Your task to perform on an android device: change text size in settings app Image 0: 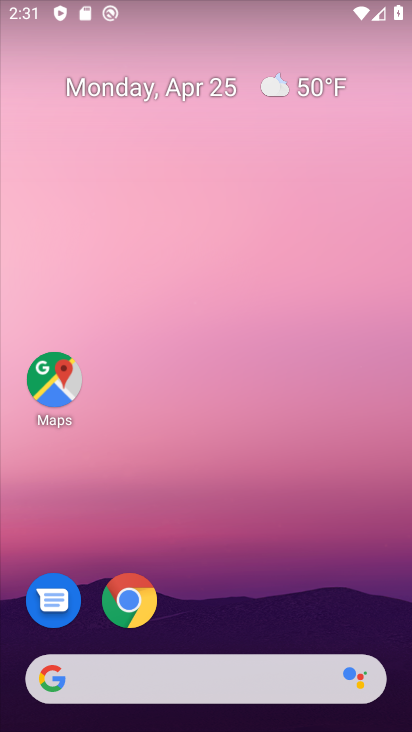
Step 0: drag from (351, 565) to (320, 125)
Your task to perform on an android device: change text size in settings app Image 1: 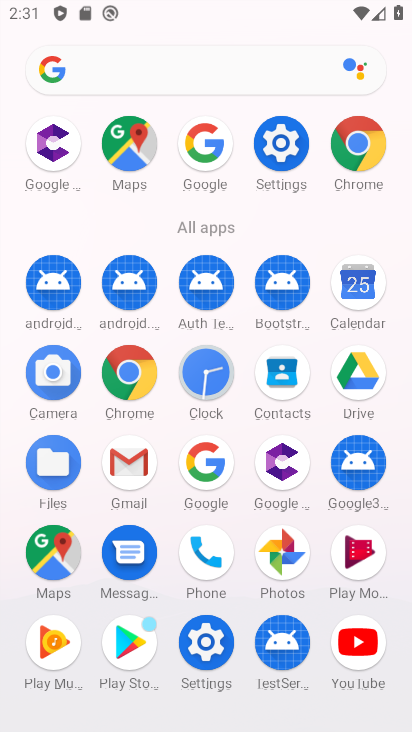
Step 1: click (199, 647)
Your task to perform on an android device: change text size in settings app Image 2: 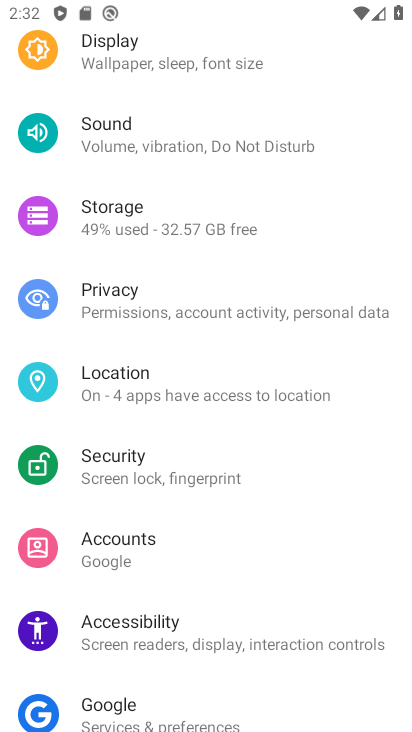
Step 2: click (128, 62)
Your task to perform on an android device: change text size in settings app Image 3: 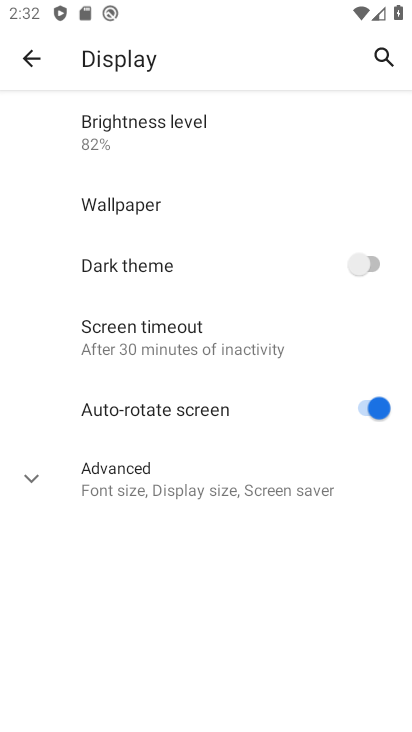
Step 3: click (121, 470)
Your task to perform on an android device: change text size in settings app Image 4: 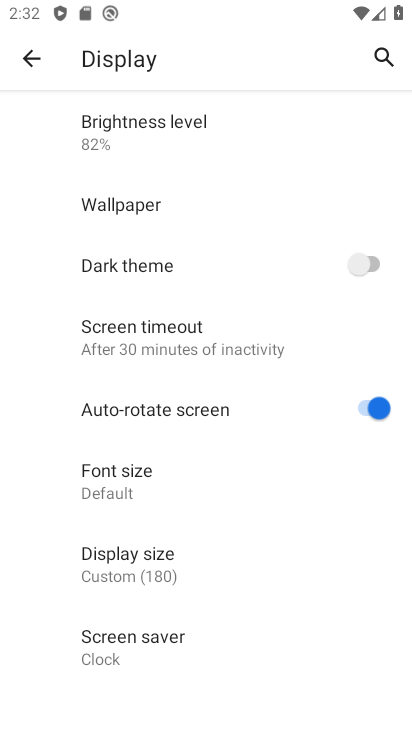
Step 4: click (114, 486)
Your task to perform on an android device: change text size in settings app Image 5: 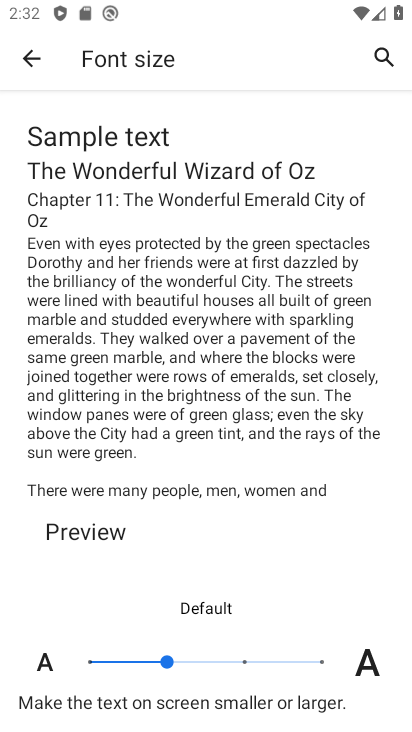
Step 5: click (96, 663)
Your task to perform on an android device: change text size in settings app Image 6: 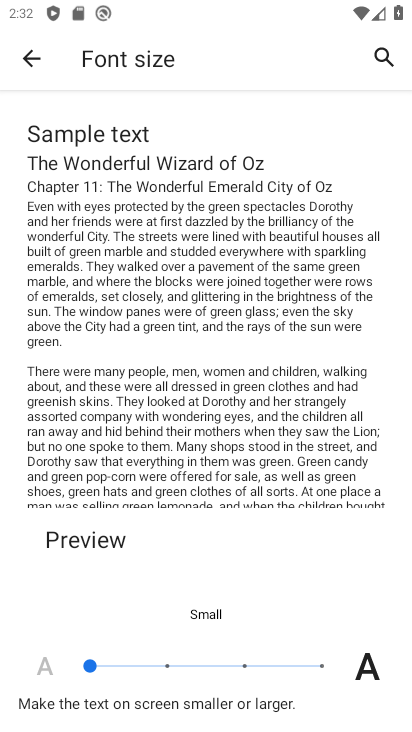
Step 6: task complete